Your task to perform on an android device: turn off notifications settings in the gmail app Image 0: 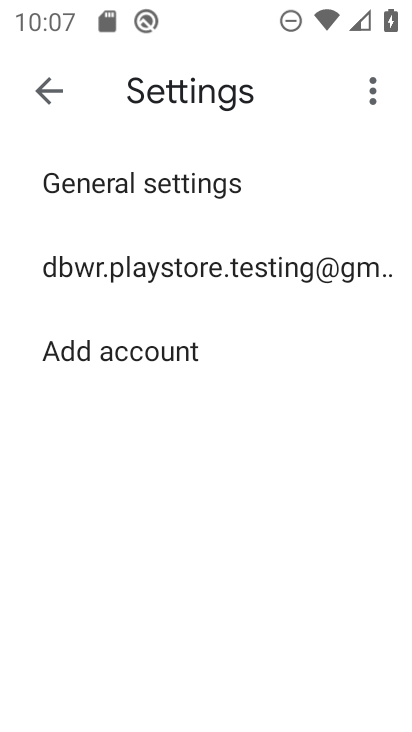
Step 0: press home button
Your task to perform on an android device: turn off notifications settings in the gmail app Image 1: 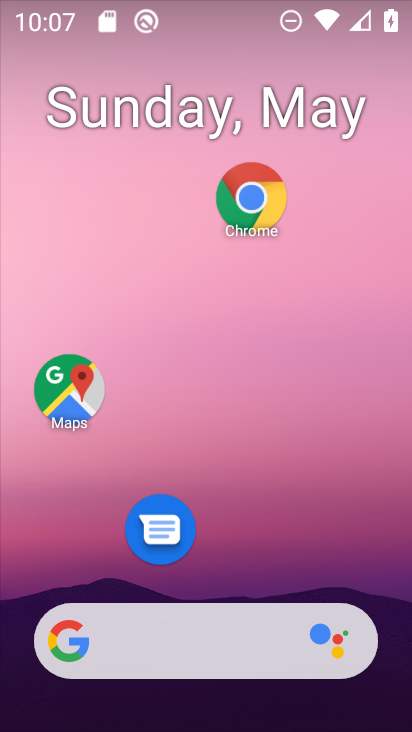
Step 1: drag from (285, 567) to (314, 87)
Your task to perform on an android device: turn off notifications settings in the gmail app Image 2: 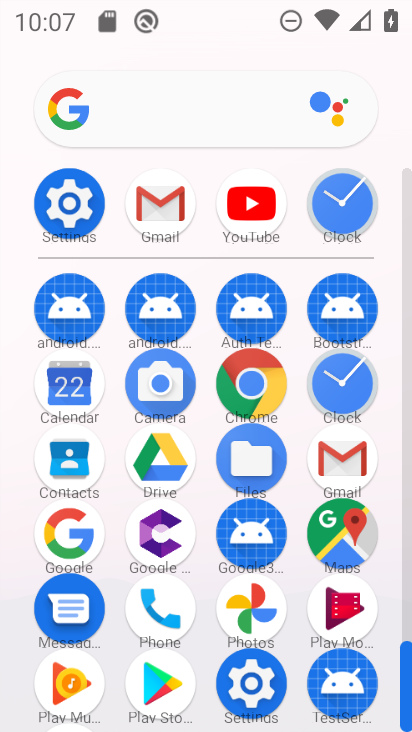
Step 2: click (158, 209)
Your task to perform on an android device: turn off notifications settings in the gmail app Image 3: 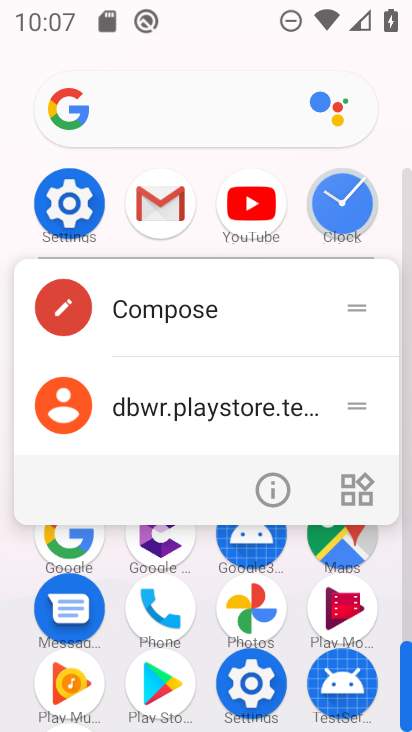
Step 3: click (154, 214)
Your task to perform on an android device: turn off notifications settings in the gmail app Image 4: 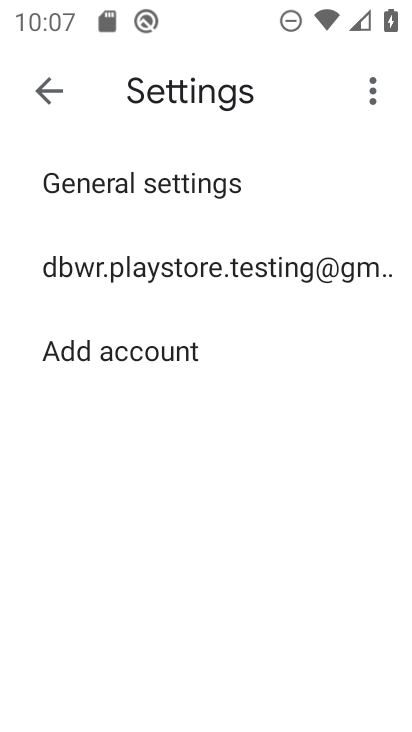
Step 4: click (118, 263)
Your task to perform on an android device: turn off notifications settings in the gmail app Image 5: 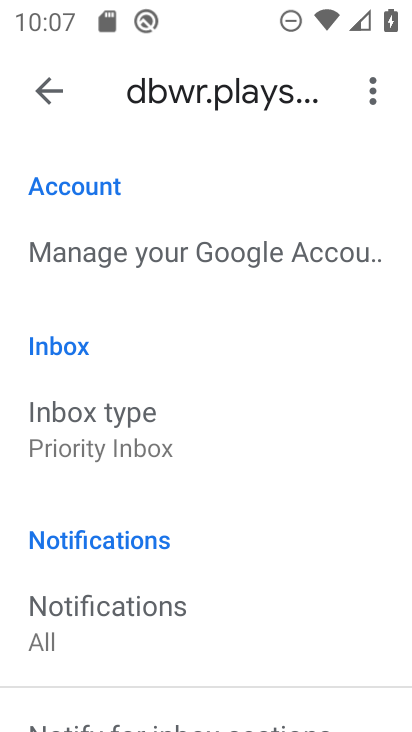
Step 5: drag from (153, 616) to (217, 286)
Your task to perform on an android device: turn off notifications settings in the gmail app Image 6: 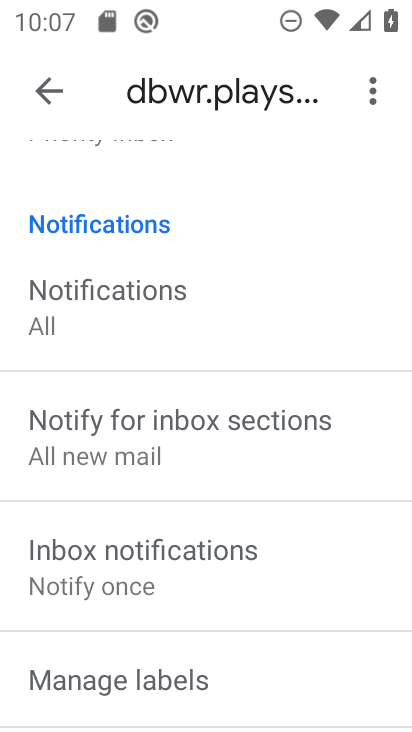
Step 6: drag from (111, 582) to (158, 302)
Your task to perform on an android device: turn off notifications settings in the gmail app Image 7: 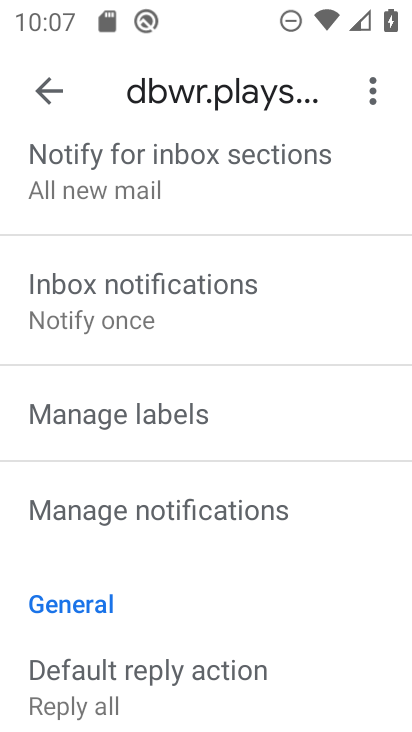
Step 7: click (158, 528)
Your task to perform on an android device: turn off notifications settings in the gmail app Image 8: 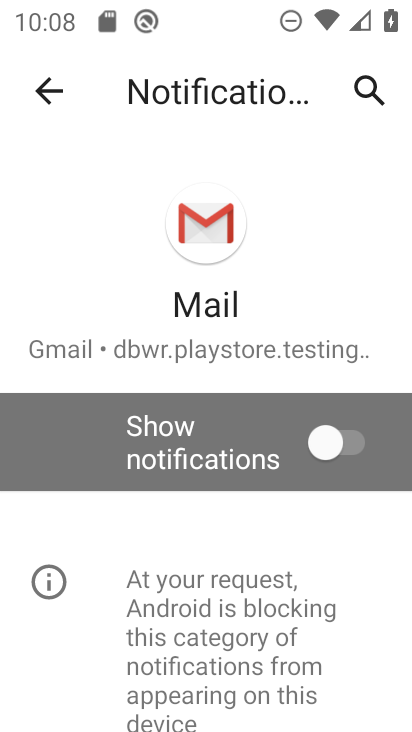
Step 8: task complete